Your task to perform on an android device: install app "Nova Launcher" Image 0: 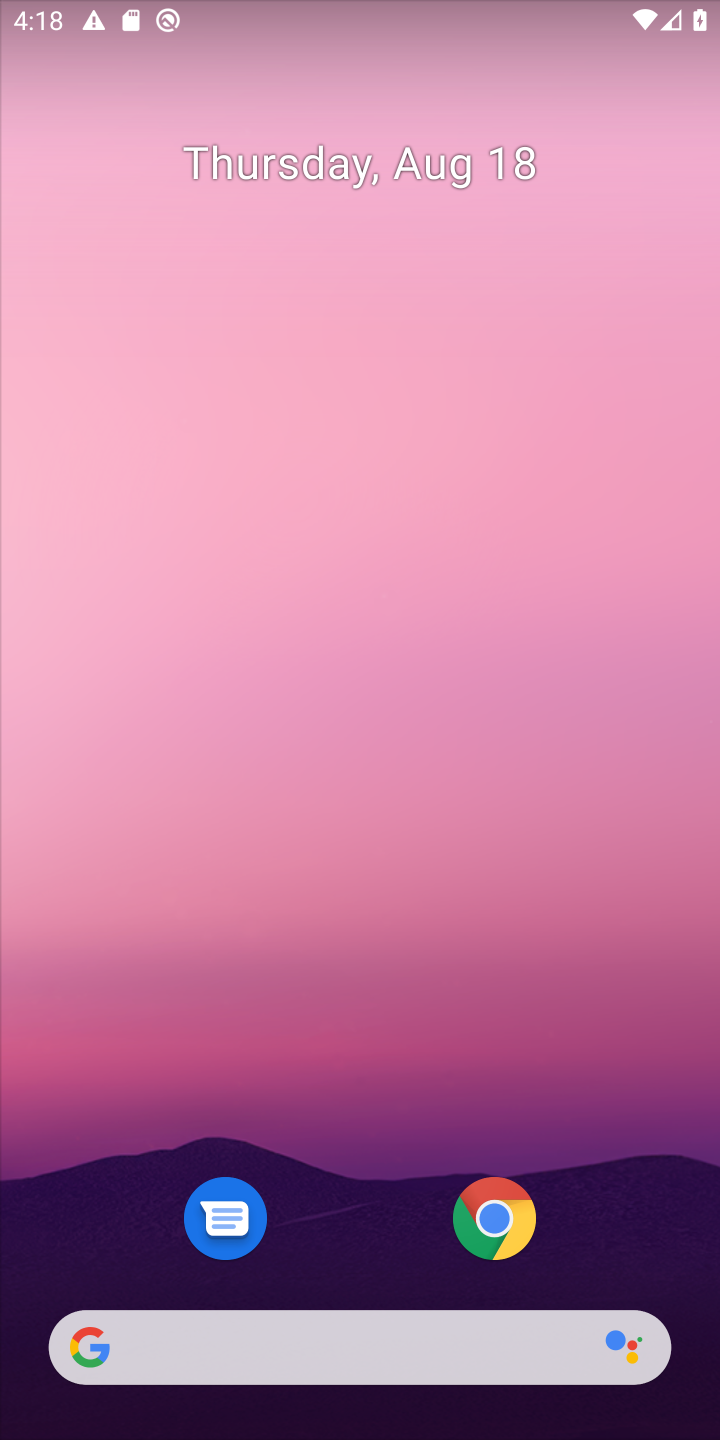
Step 0: drag from (373, 1151) to (321, 448)
Your task to perform on an android device: install app "Nova Launcher" Image 1: 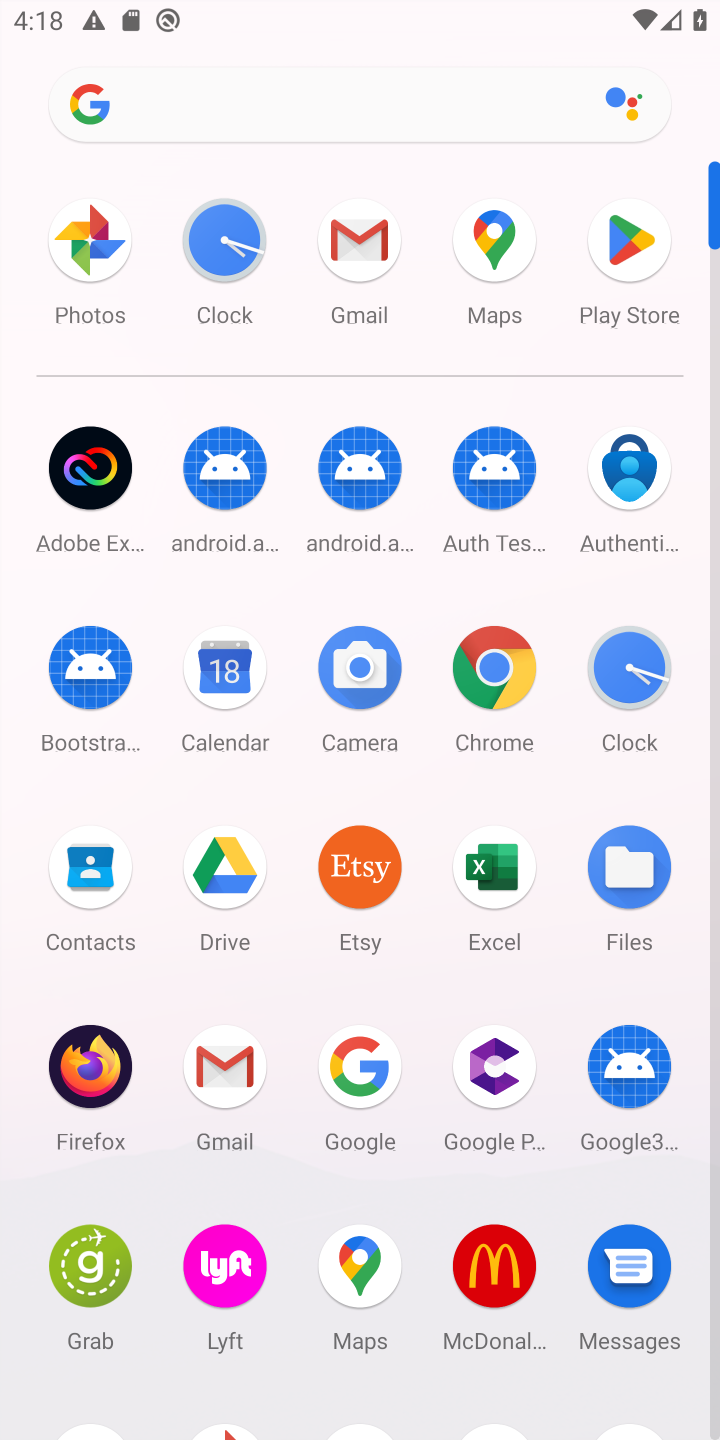
Step 1: click (613, 277)
Your task to perform on an android device: install app "Nova Launcher" Image 2: 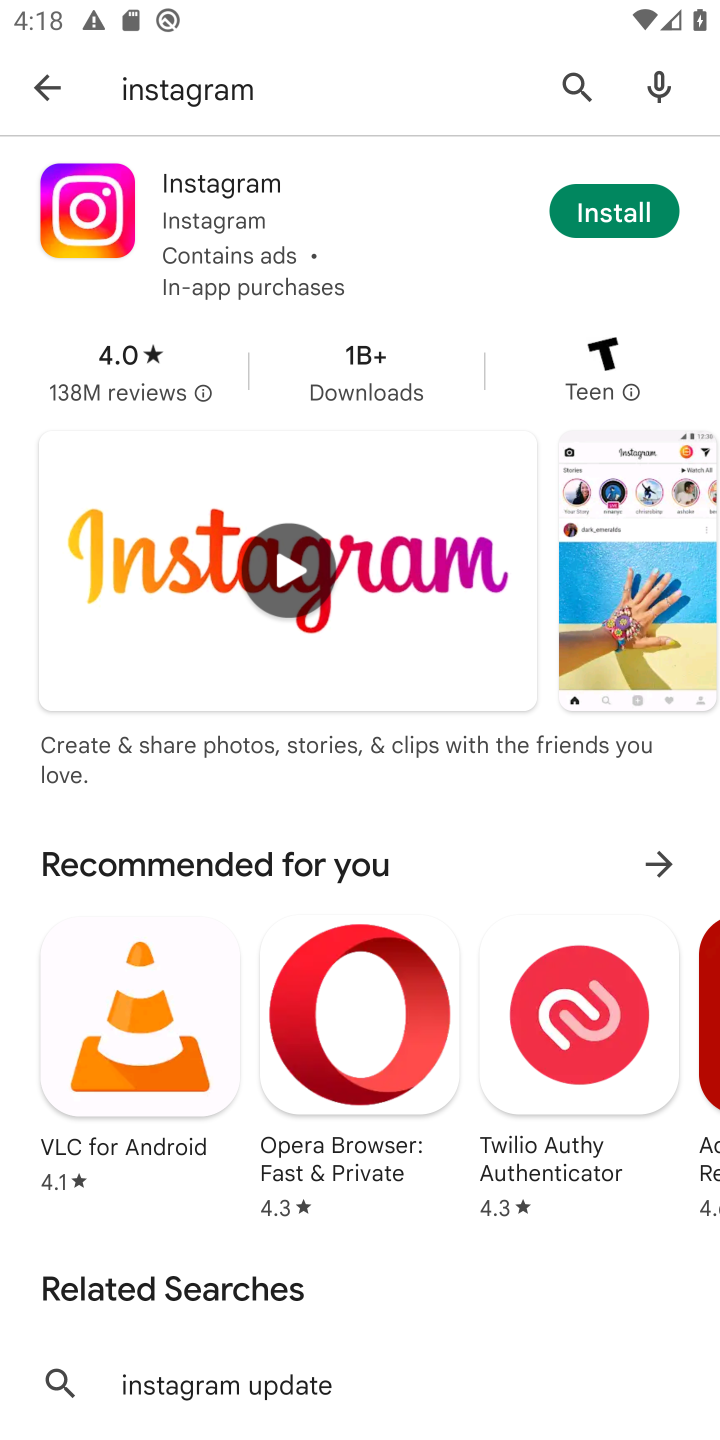
Step 2: click (570, 71)
Your task to perform on an android device: install app "Nova Launcher" Image 3: 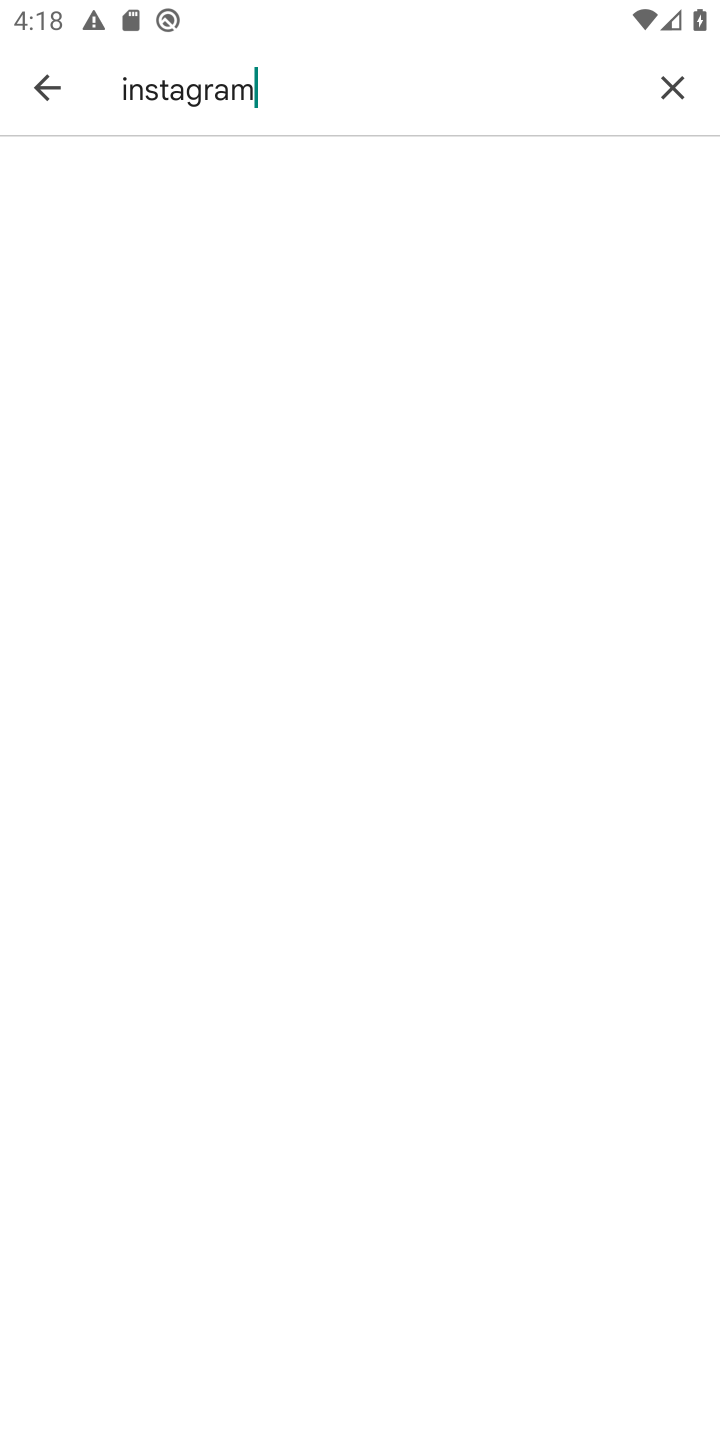
Step 3: click (564, 71)
Your task to perform on an android device: install app "Nova Launcher" Image 4: 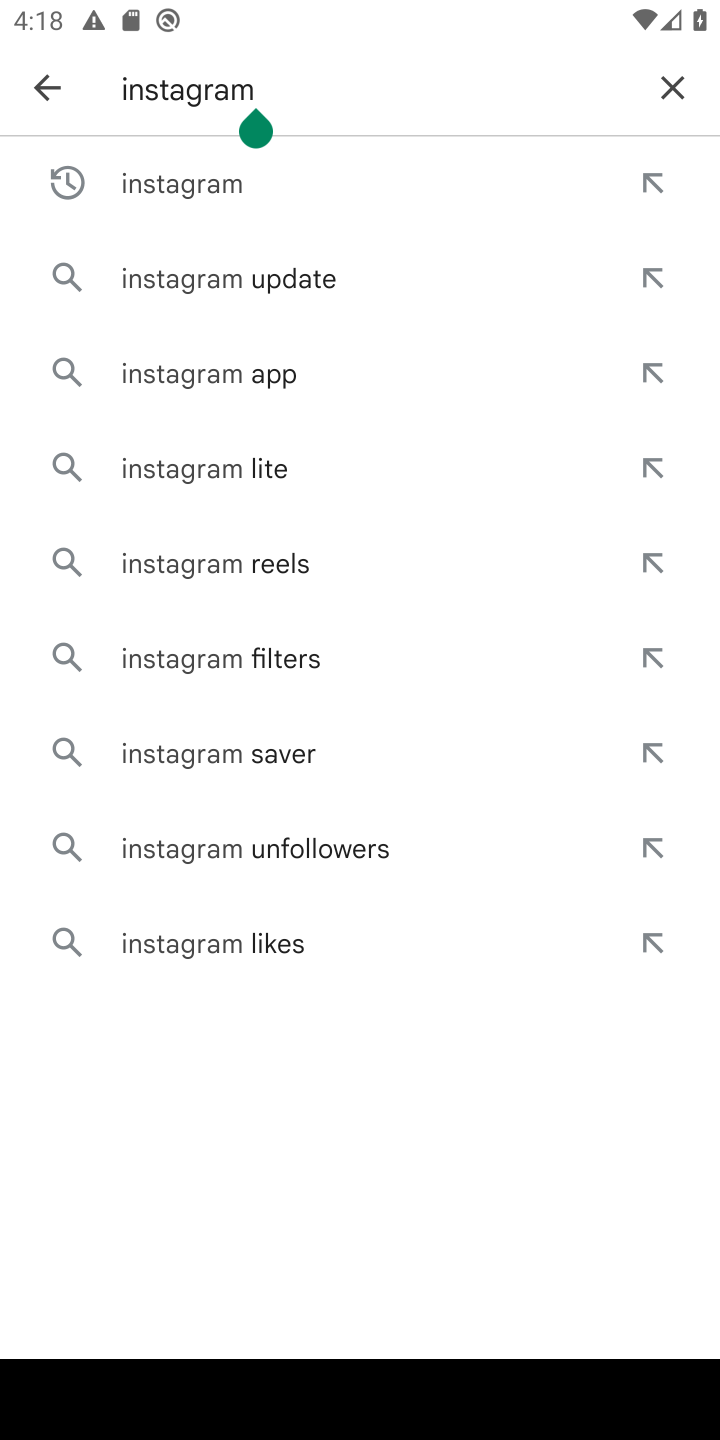
Step 4: click (667, 70)
Your task to perform on an android device: install app "Nova Launcher" Image 5: 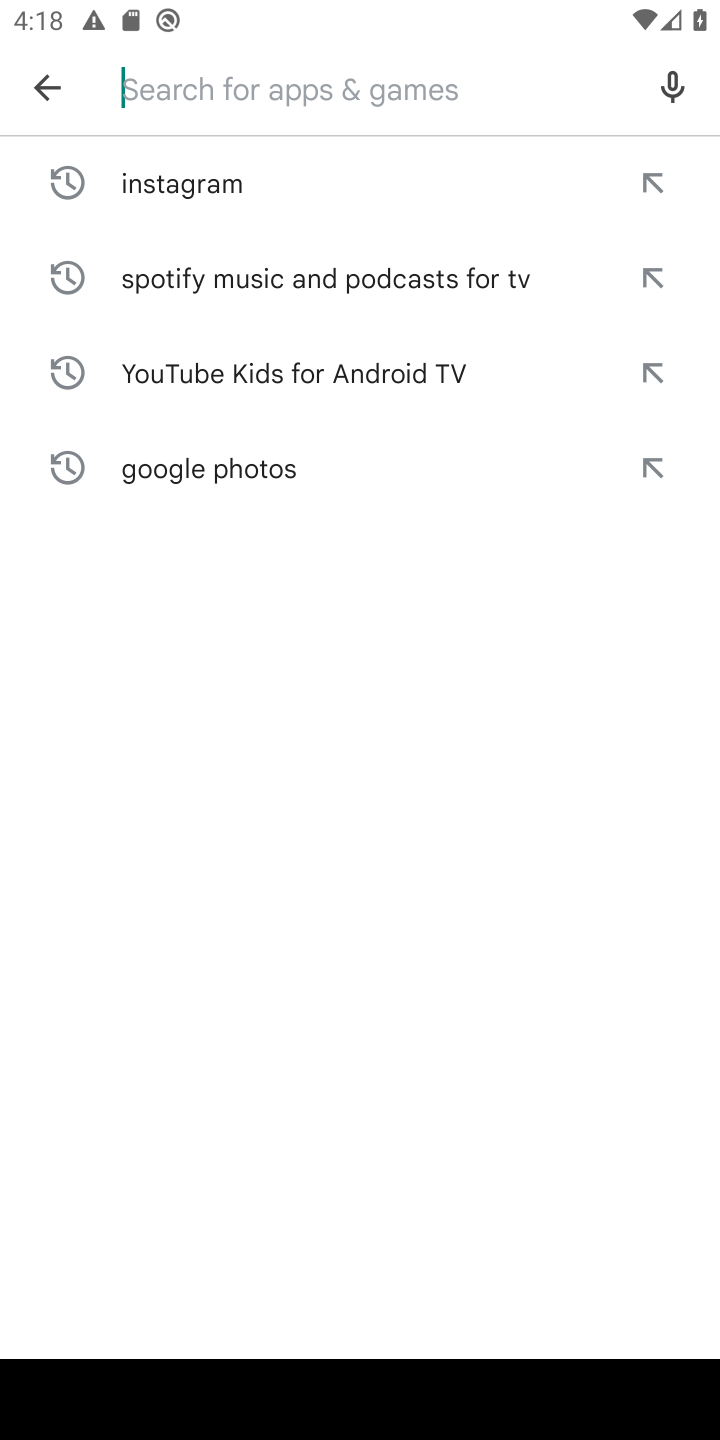
Step 5: type "Nova Launcher"
Your task to perform on an android device: install app "Nova Launcher" Image 6: 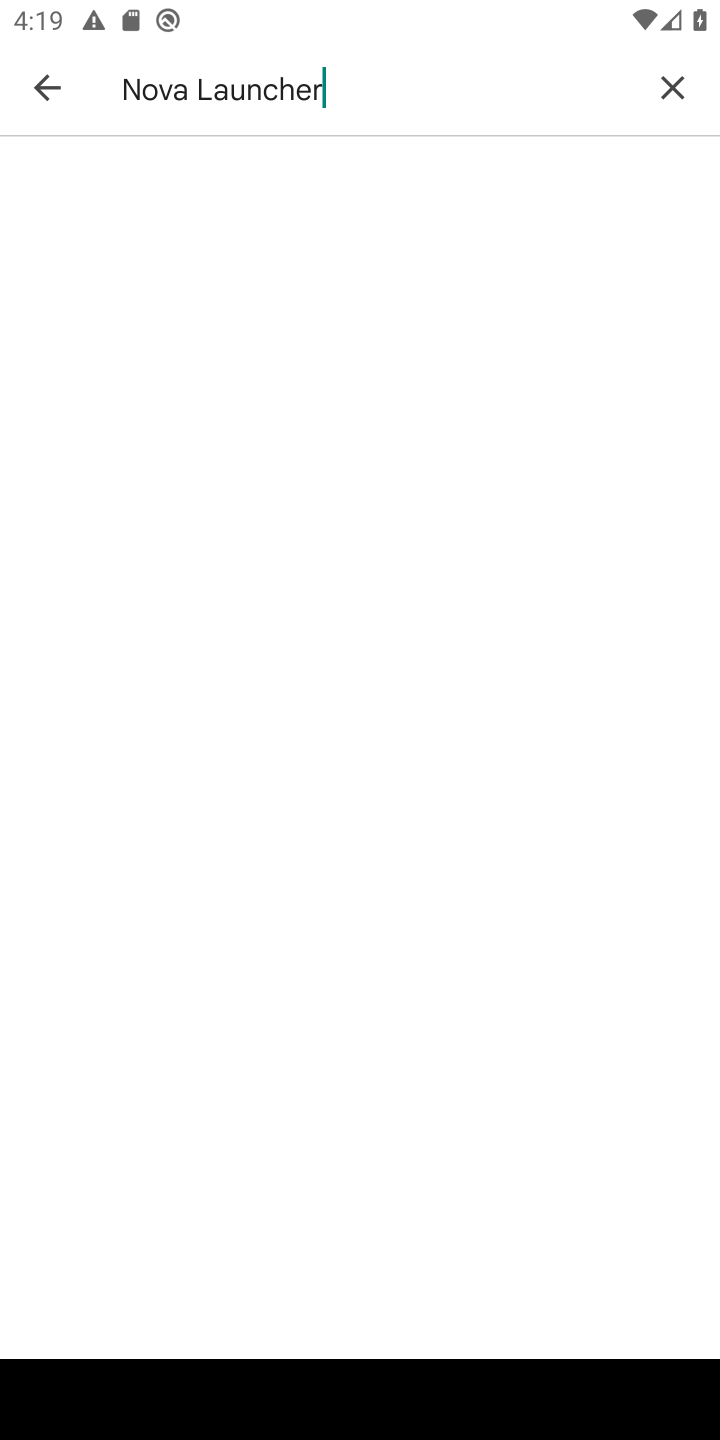
Step 6: task complete